Your task to perform on an android device: What is the news today? Image 0: 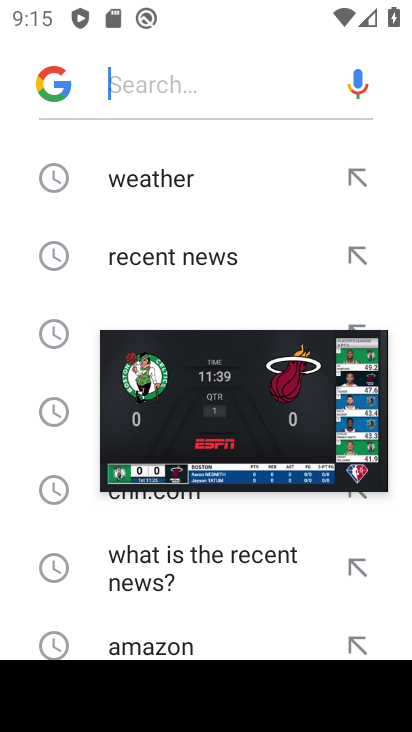
Step 0: click (303, 552)
Your task to perform on an android device: What is the news today? Image 1: 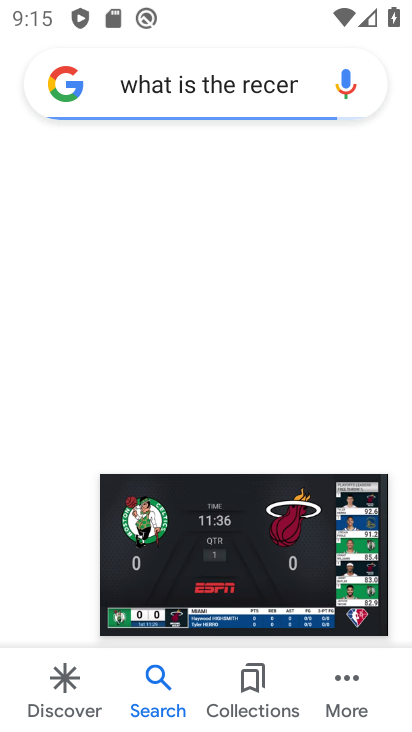
Step 1: click (355, 497)
Your task to perform on an android device: What is the news today? Image 2: 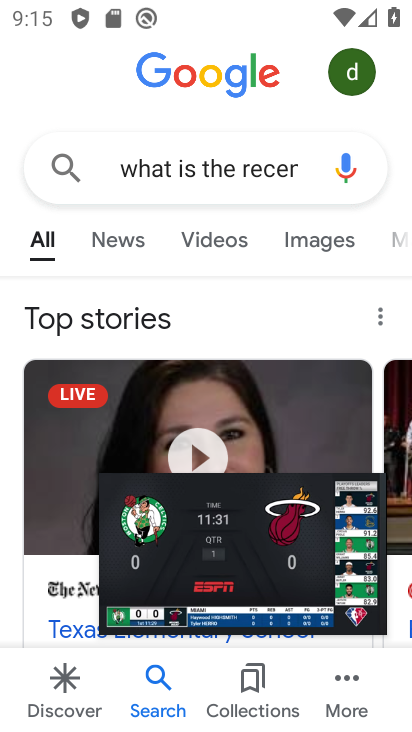
Step 2: click (409, 425)
Your task to perform on an android device: What is the news today? Image 3: 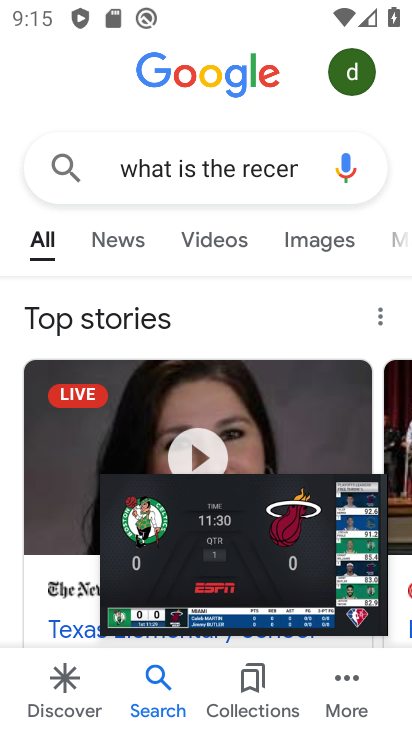
Step 3: click (362, 496)
Your task to perform on an android device: What is the news today? Image 4: 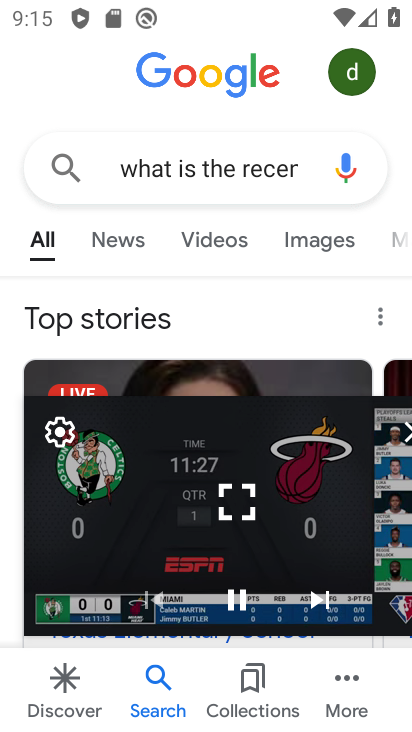
Step 4: click (410, 430)
Your task to perform on an android device: What is the news today? Image 5: 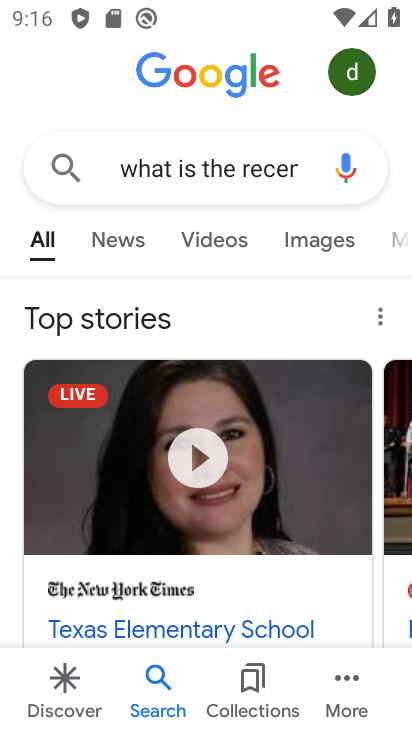
Step 5: click (269, 159)
Your task to perform on an android device: What is the news today? Image 6: 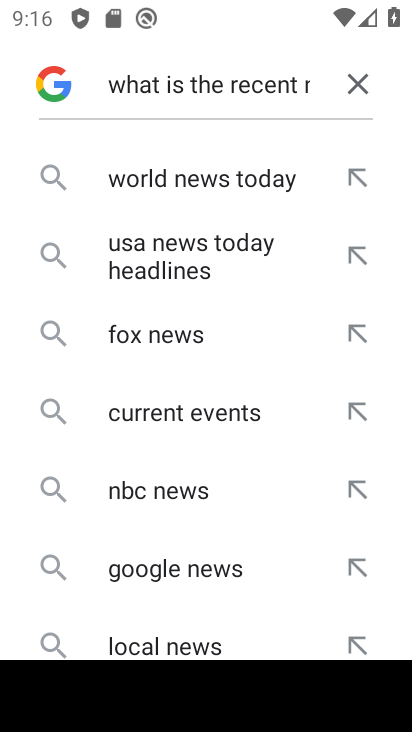
Step 6: click (296, 79)
Your task to perform on an android device: What is the news today? Image 7: 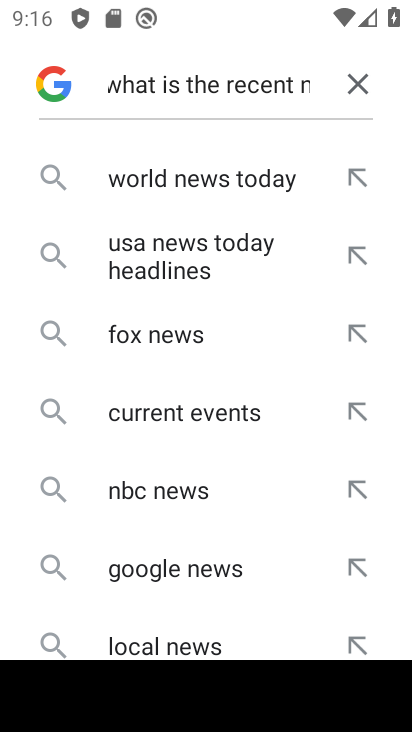
Step 7: click (359, 83)
Your task to perform on an android device: What is the news today? Image 8: 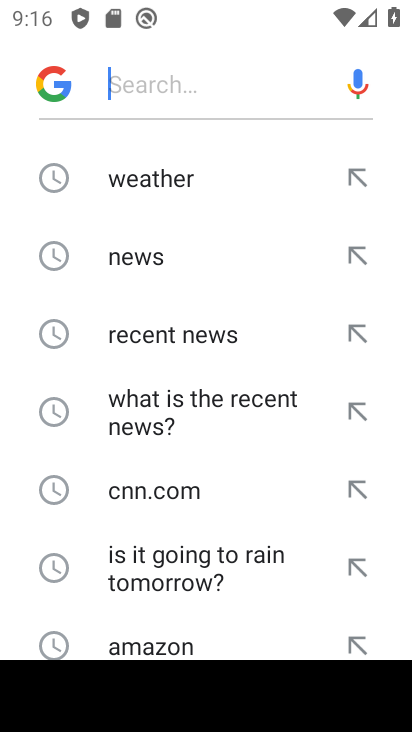
Step 8: type "news today?"
Your task to perform on an android device: What is the news today? Image 9: 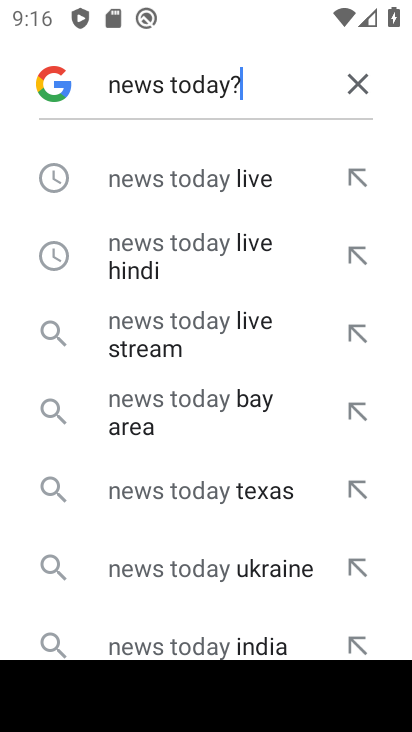
Step 9: click (254, 190)
Your task to perform on an android device: What is the news today? Image 10: 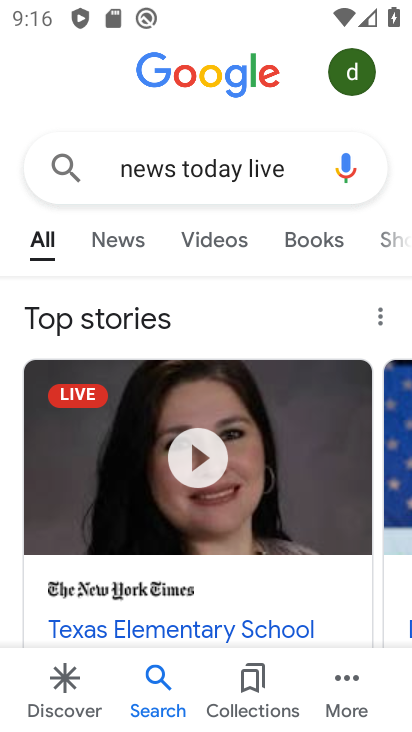
Step 10: click (254, 190)
Your task to perform on an android device: What is the news today? Image 11: 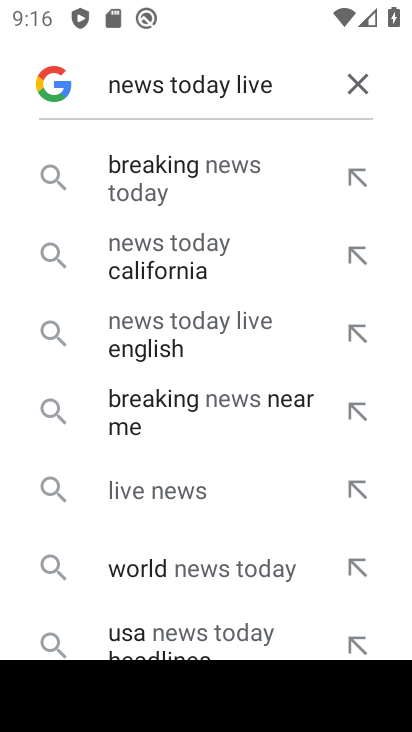
Step 11: press back button
Your task to perform on an android device: What is the news today? Image 12: 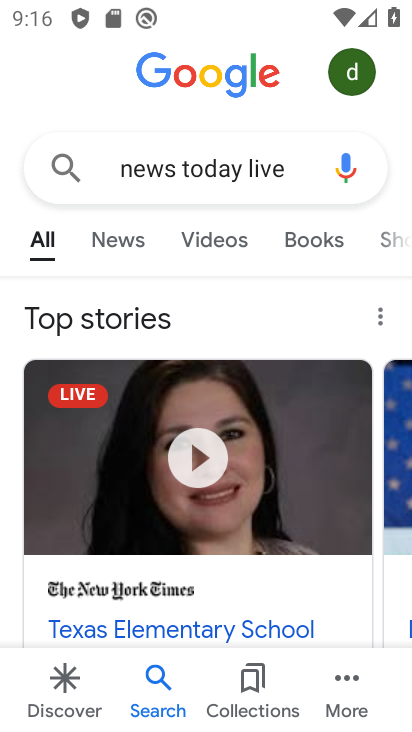
Step 12: click (134, 238)
Your task to perform on an android device: What is the news today? Image 13: 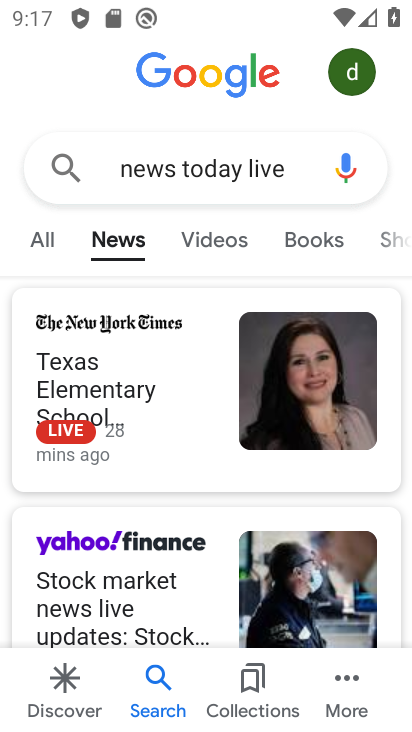
Step 13: task complete